Your task to perform on an android device: delete location history Image 0: 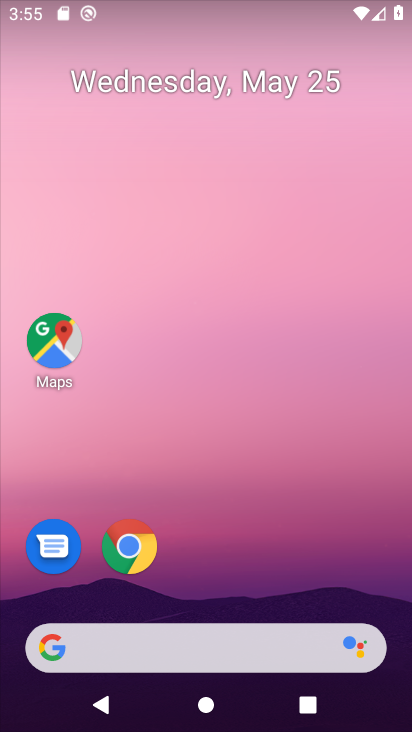
Step 0: drag from (238, 594) to (183, 119)
Your task to perform on an android device: delete location history Image 1: 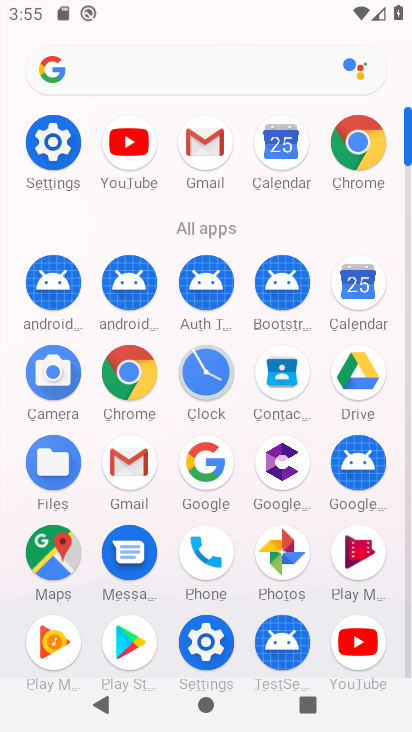
Step 1: click (48, 556)
Your task to perform on an android device: delete location history Image 2: 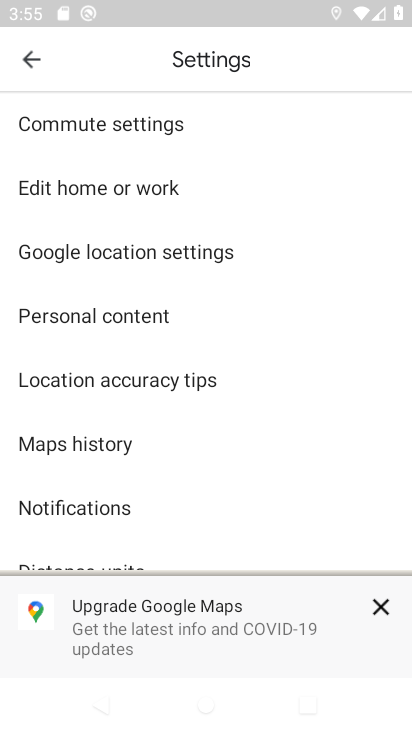
Step 2: click (378, 609)
Your task to perform on an android device: delete location history Image 3: 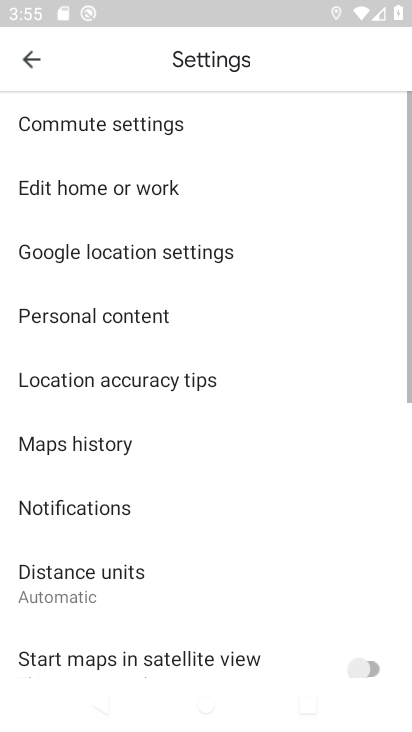
Step 3: click (30, 53)
Your task to perform on an android device: delete location history Image 4: 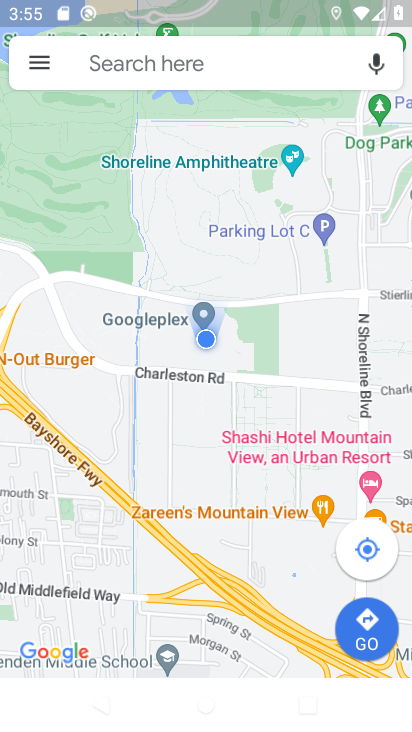
Step 4: click (38, 55)
Your task to perform on an android device: delete location history Image 5: 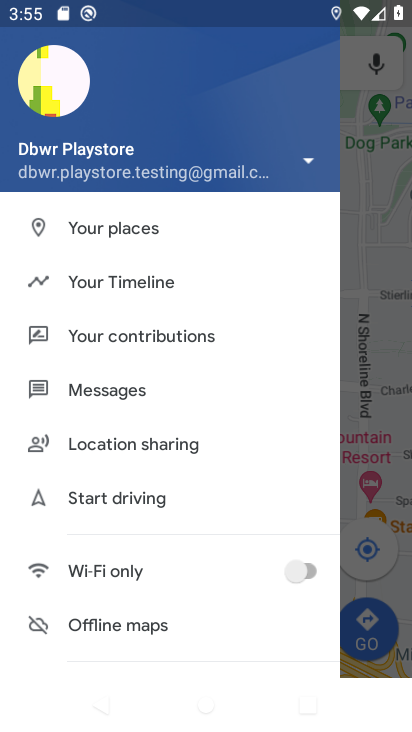
Step 5: drag from (196, 532) to (232, 728)
Your task to perform on an android device: delete location history Image 6: 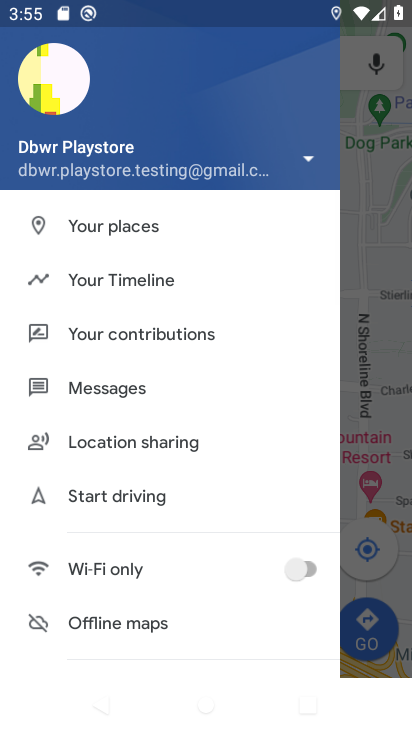
Step 6: click (154, 294)
Your task to perform on an android device: delete location history Image 7: 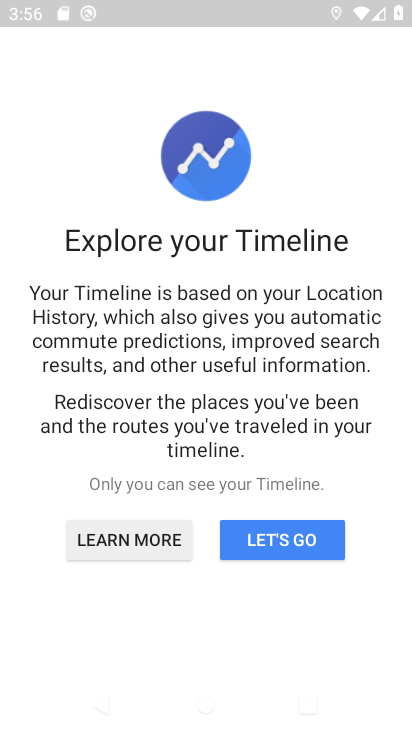
Step 7: click (289, 537)
Your task to perform on an android device: delete location history Image 8: 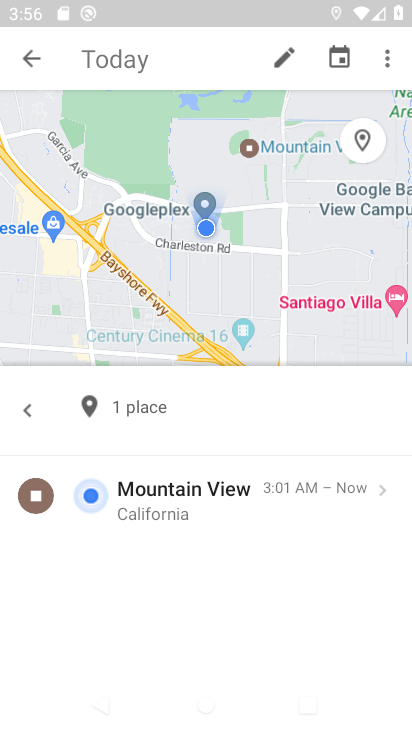
Step 8: click (385, 68)
Your task to perform on an android device: delete location history Image 9: 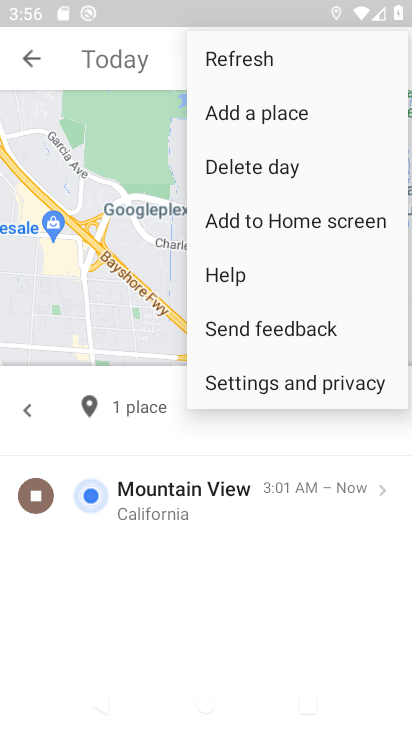
Step 9: click (343, 383)
Your task to perform on an android device: delete location history Image 10: 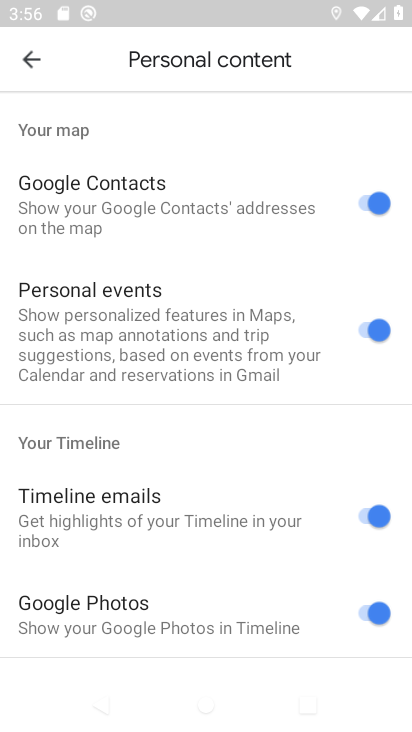
Step 10: drag from (266, 569) to (224, 303)
Your task to perform on an android device: delete location history Image 11: 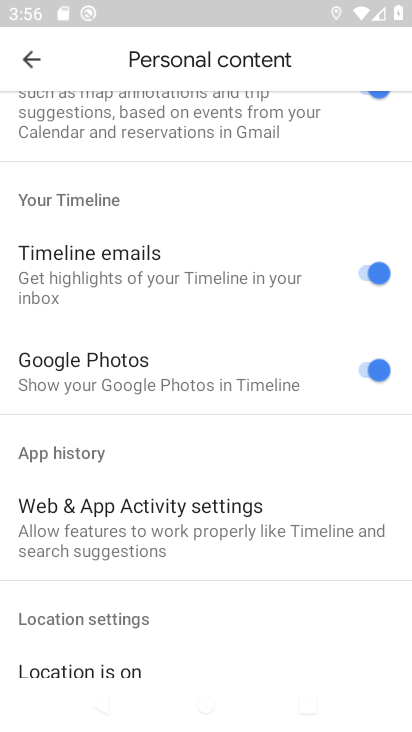
Step 11: drag from (239, 631) to (205, 338)
Your task to perform on an android device: delete location history Image 12: 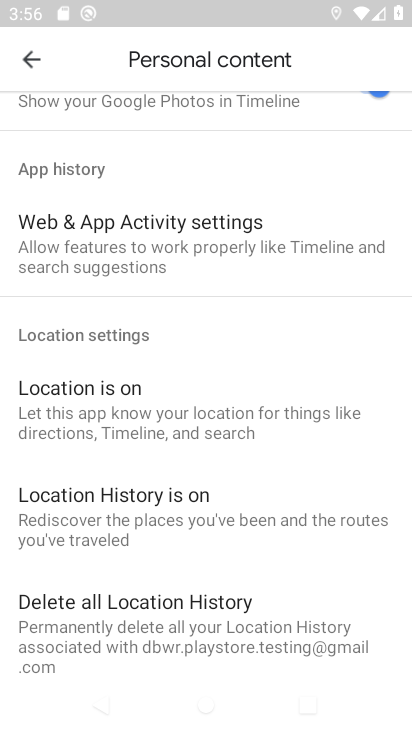
Step 12: click (190, 624)
Your task to perform on an android device: delete location history Image 13: 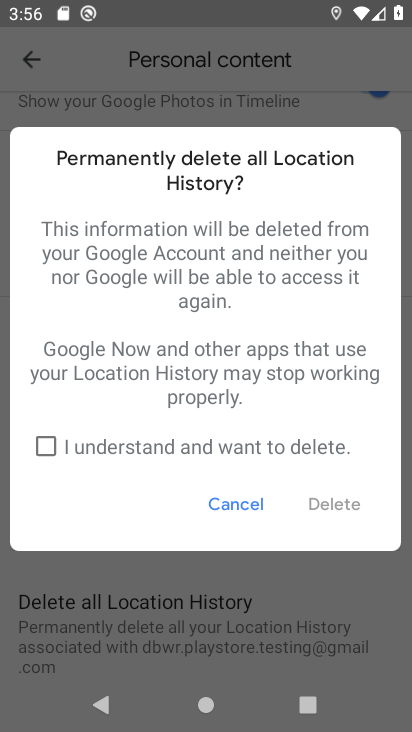
Step 13: click (230, 444)
Your task to perform on an android device: delete location history Image 14: 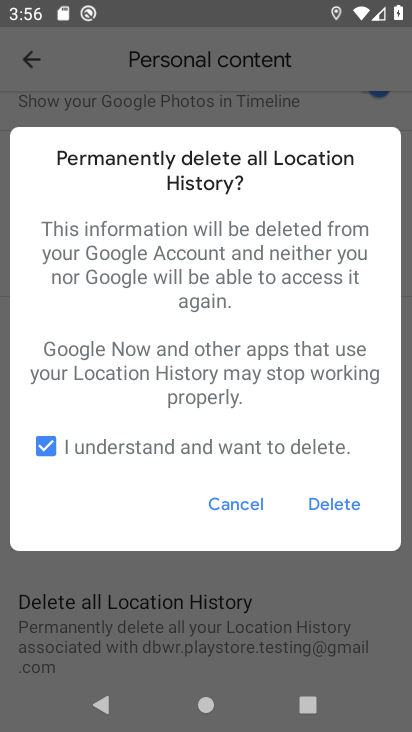
Step 14: click (322, 502)
Your task to perform on an android device: delete location history Image 15: 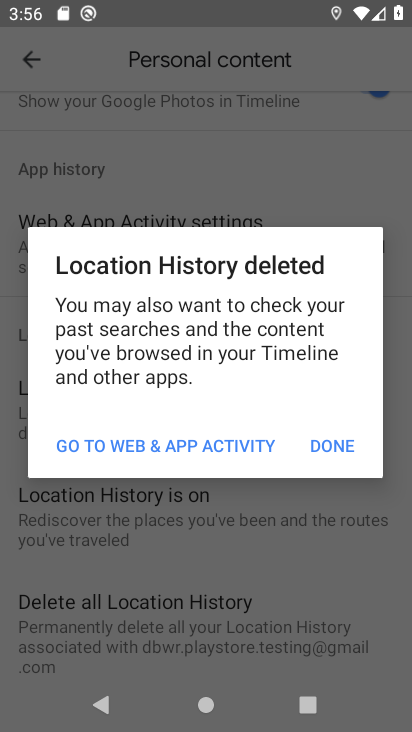
Step 15: click (321, 451)
Your task to perform on an android device: delete location history Image 16: 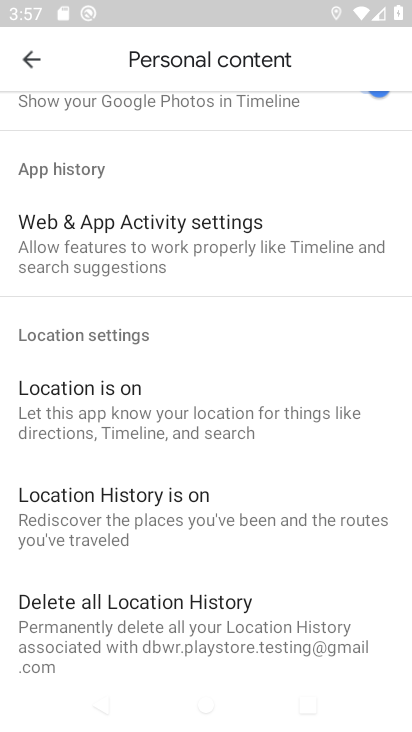
Step 16: task complete